Your task to perform on an android device: Open maps Image 0: 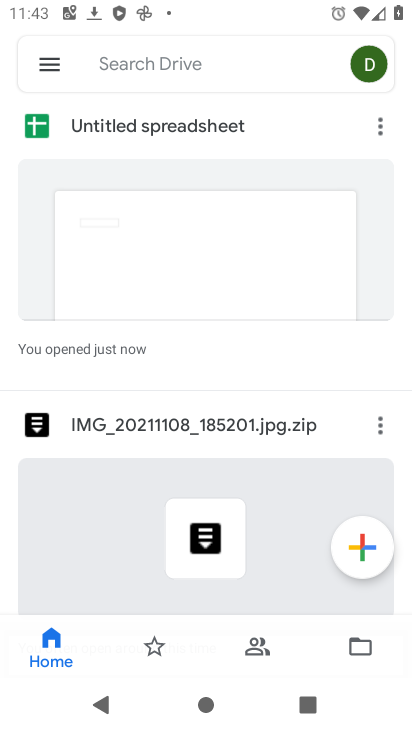
Step 0: press home button
Your task to perform on an android device: Open maps Image 1: 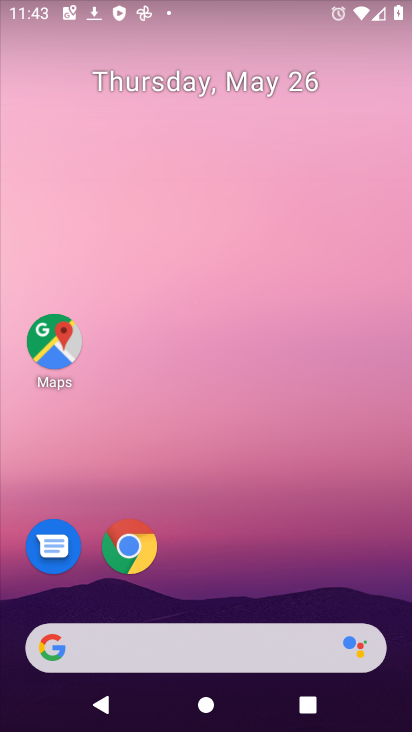
Step 1: click (59, 354)
Your task to perform on an android device: Open maps Image 2: 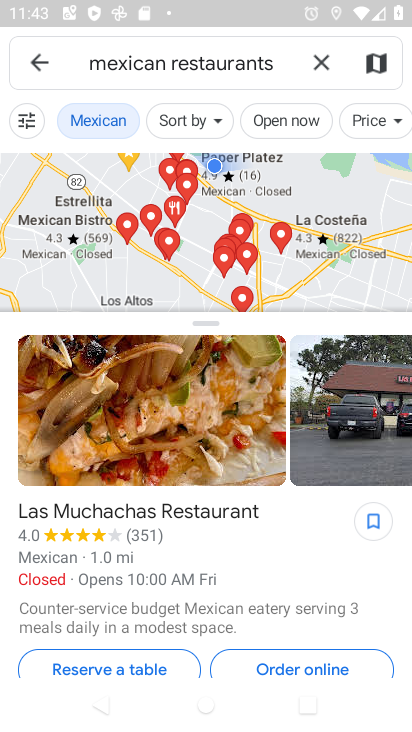
Step 2: task complete